Your task to perform on an android device: stop showing notifications on the lock screen Image 0: 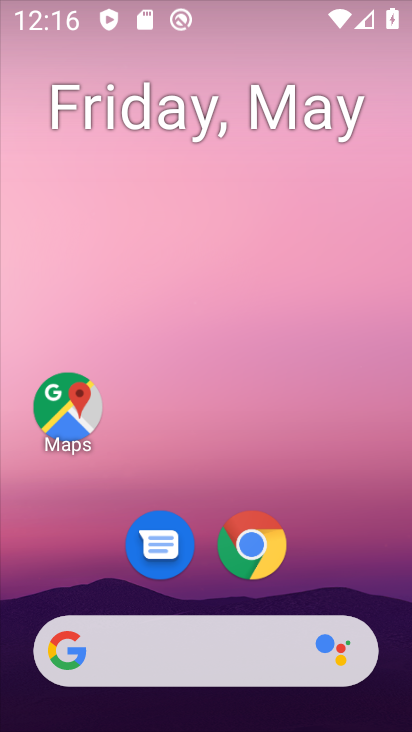
Step 0: drag from (202, 550) to (224, 1)
Your task to perform on an android device: stop showing notifications on the lock screen Image 1: 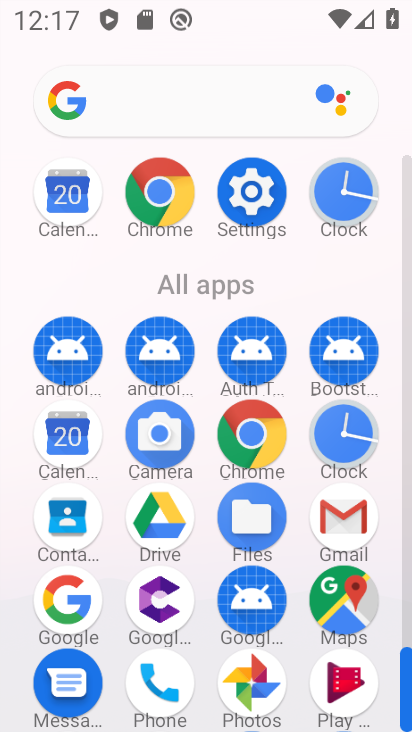
Step 1: click (255, 210)
Your task to perform on an android device: stop showing notifications on the lock screen Image 2: 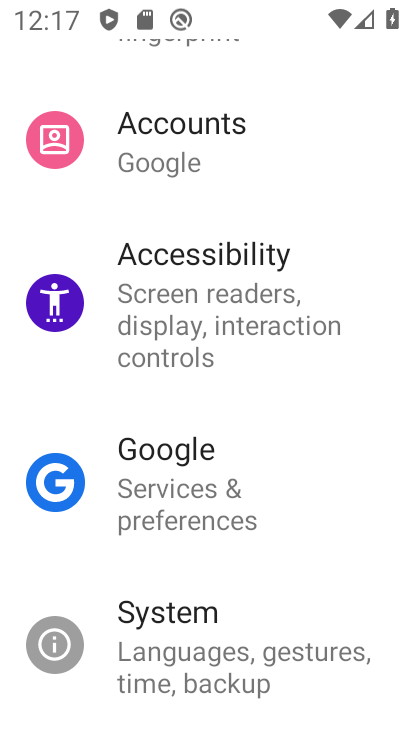
Step 2: drag from (246, 157) to (228, 648)
Your task to perform on an android device: stop showing notifications on the lock screen Image 3: 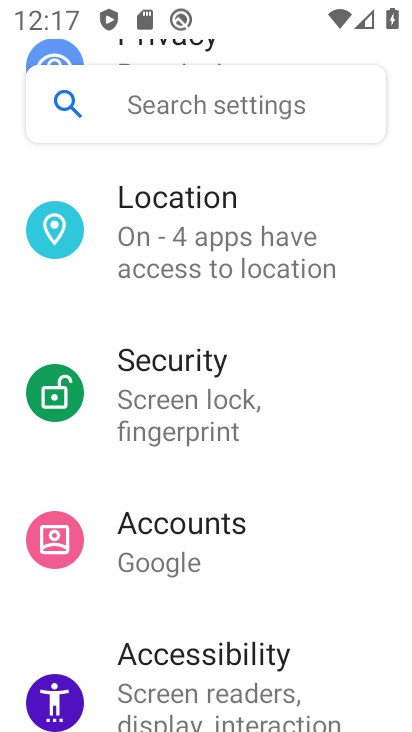
Step 3: drag from (215, 443) to (213, 731)
Your task to perform on an android device: stop showing notifications on the lock screen Image 4: 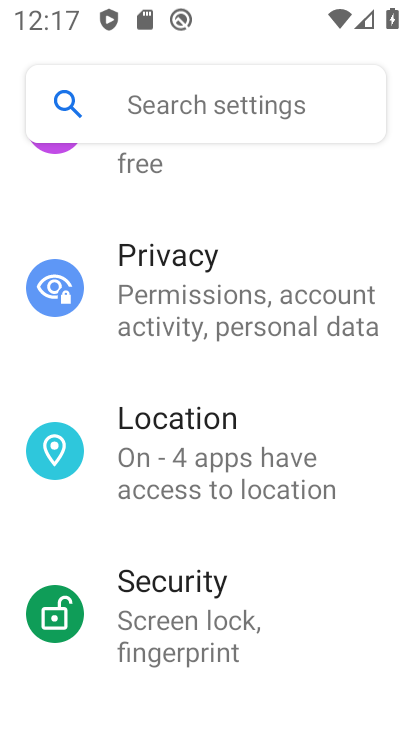
Step 4: drag from (239, 343) to (199, 731)
Your task to perform on an android device: stop showing notifications on the lock screen Image 5: 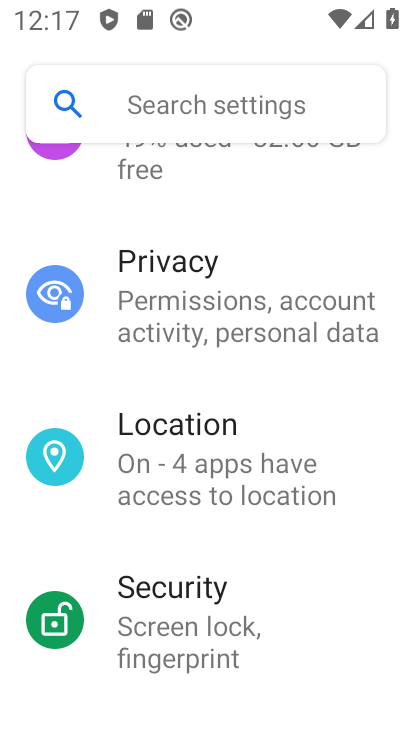
Step 5: drag from (233, 317) to (229, 620)
Your task to perform on an android device: stop showing notifications on the lock screen Image 6: 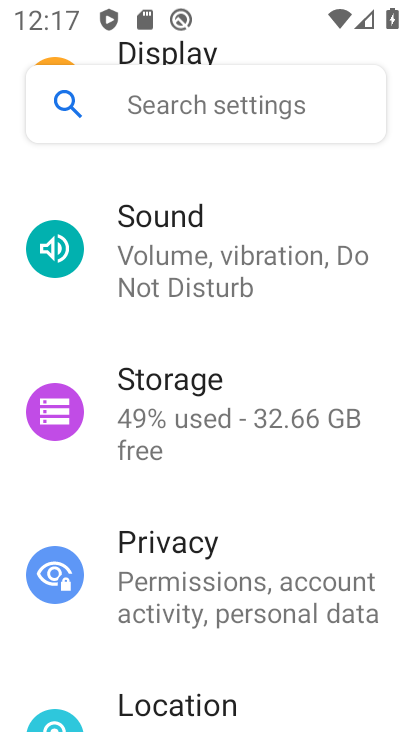
Step 6: drag from (255, 256) to (255, 563)
Your task to perform on an android device: stop showing notifications on the lock screen Image 7: 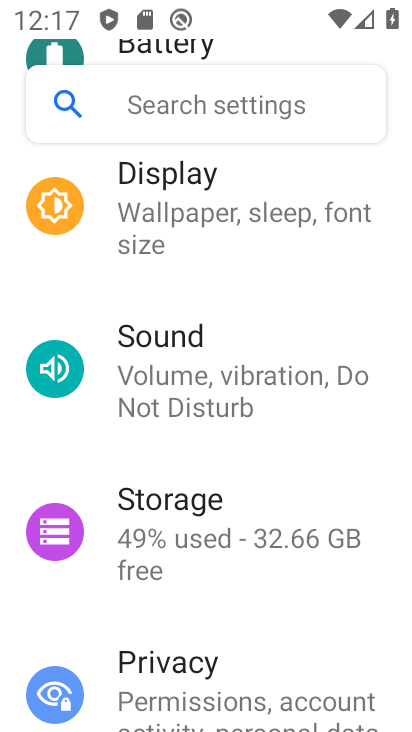
Step 7: drag from (237, 296) to (202, 648)
Your task to perform on an android device: stop showing notifications on the lock screen Image 8: 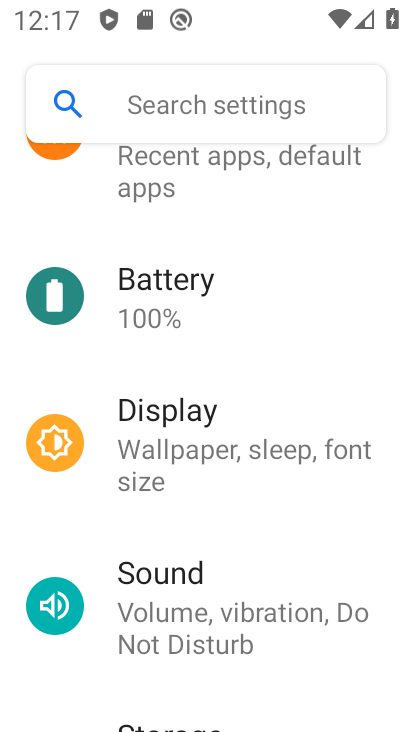
Step 8: drag from (223, 288) to (188, 651)
Your task to perform on an android device: stop showing notifications on the lock screen Image 9: 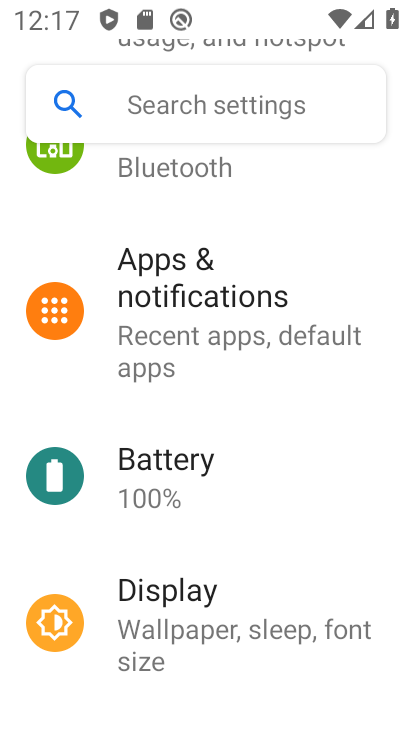
Step 9: drag from (263, 273) to (230, 506)
Your task to perform on an android device: stop showing notifications on the lock screen Image 10: 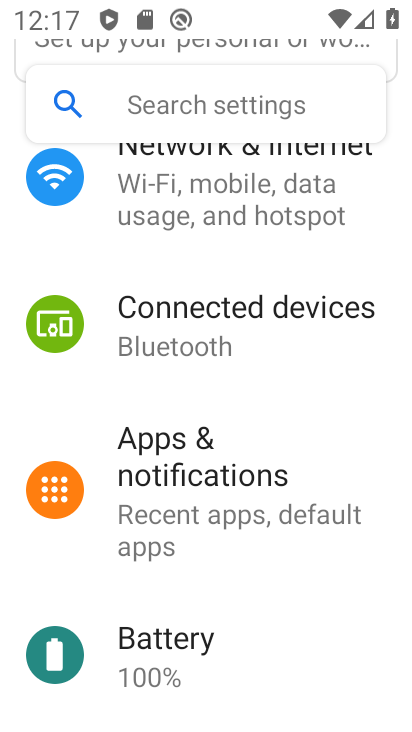
Step 10: click (206, 507)
Your task to perform on an android device: stop showing notifications on the lock screen Image 11: 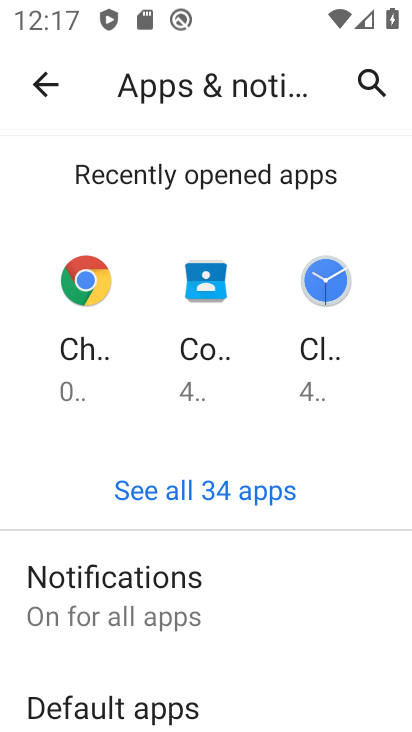
Step 11: click (183, 479)
Your task to perform on an android device: stop showing notifications on the lock screen Image 12: 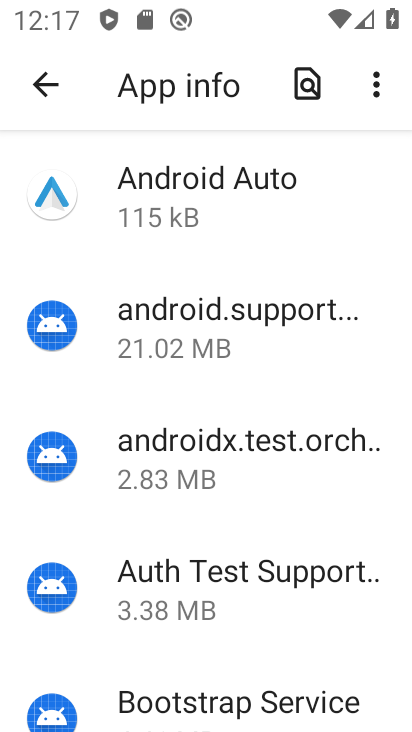
Step 12: click (47, 77)
Your task to perform on an android device: stop showing notifications on the lock screen Image 13: 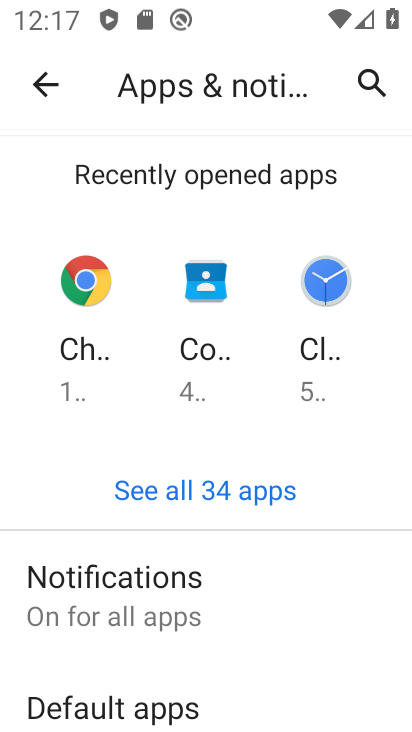
Step 13: click (110, 627)
Your task to perform on an android device: stop showing notifications on the lock screen Image 14: 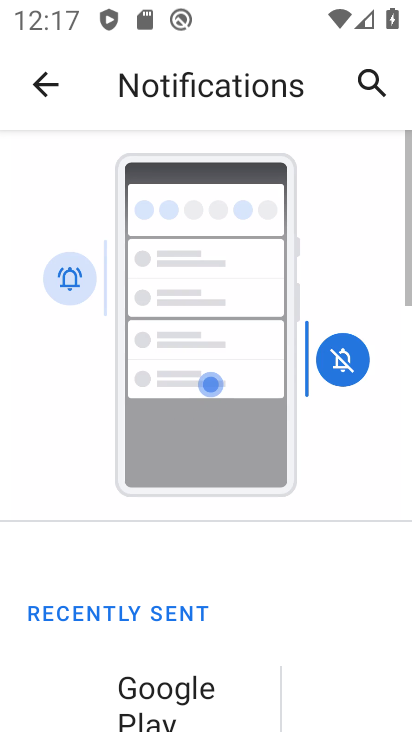
Step 14: drag from (222, 689) to (265, 174)
Your task to perform on an android device: stop showing notifications on the lock screen Image 15: 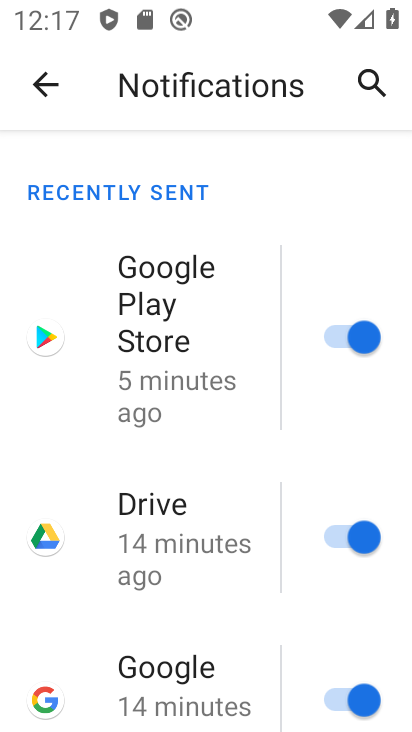
Step 15: drag from (165, 653) to (188, 343)
Your task to perform on an android device: stop showing notifications on the lock screen Image 16: 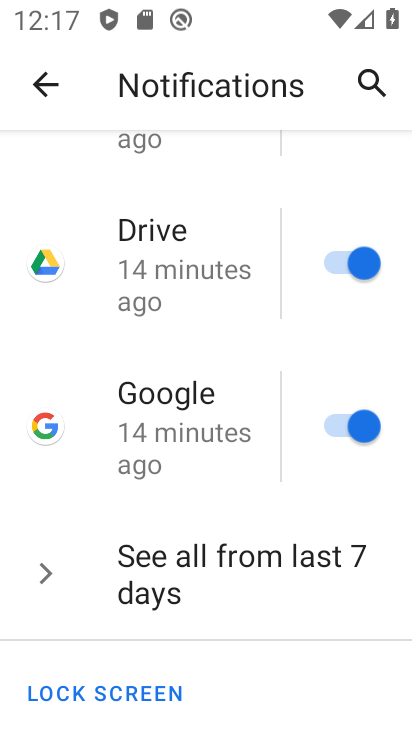
Step 16: drag from (179, 676) to (188, 340)
Your task to perform on an android device: stop showing notifications on the lock screen Image 17: 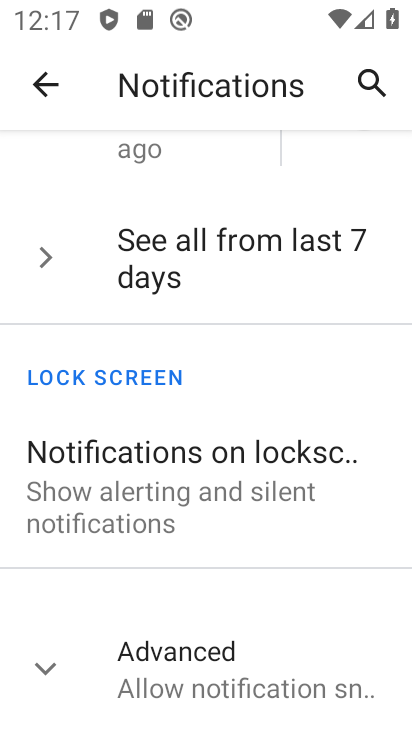
Step 17: click (155, 485)
Your task to perform on an android device: stop showing notifications on the lock screen Image 18: 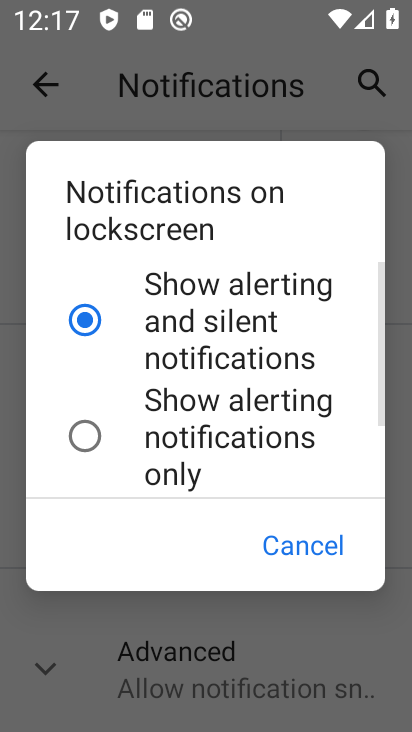
Step 18: click (96, 442)
Your task to perform on an android device: stop showing notifications on the lock screen Image 19: 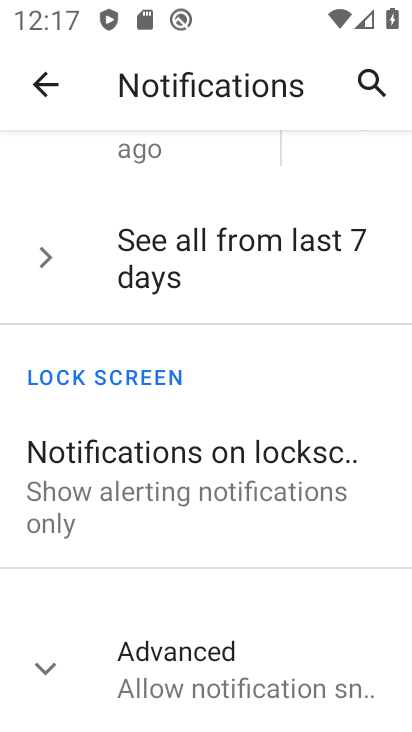
Step 19: task complete